Your task to perform on an android device: Turn on the flashlight Image 0: 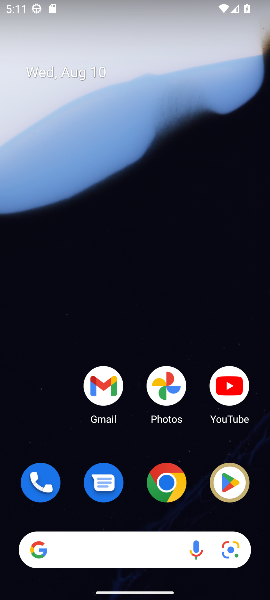
Step 0: drag from (37, 414) to (101, 54)
Your task to perform on an android device: Turn on the flashlight Image 1: 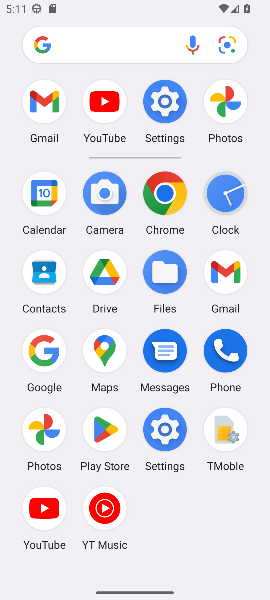
Step 1: click (157, 103)
Your task to perform on an android device: Turn on the flashlight Image 2: 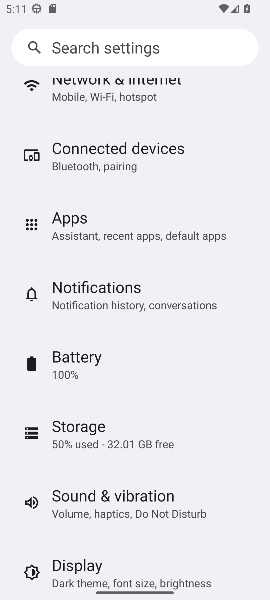
Step 2: click (163, 47)
Your task to perform on an android device: Turn on the flashlight Image 3: 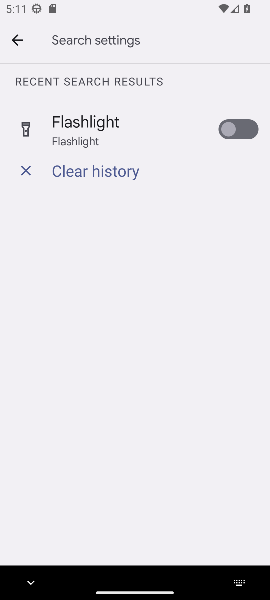
Step 3: click (233, 127)
Your task to perform on an android device: Turn on the flashlight Image 4: 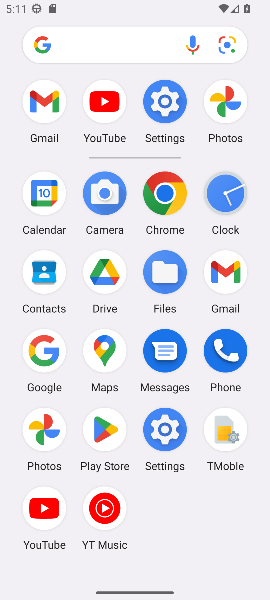
Step 4: task complete